Your task to perform on an android device: Search for the best rated 4K TV on Best Buy. Image 0: 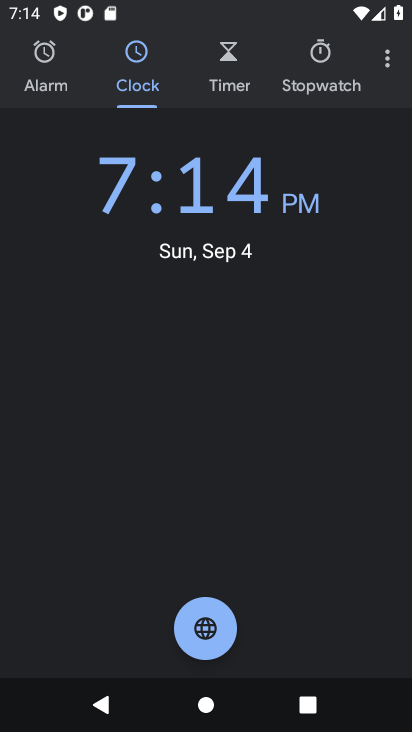
Step 0: press home button
Your task to perform on an android device: Search for the best rated 4K TV on Best Buy. Image 1: 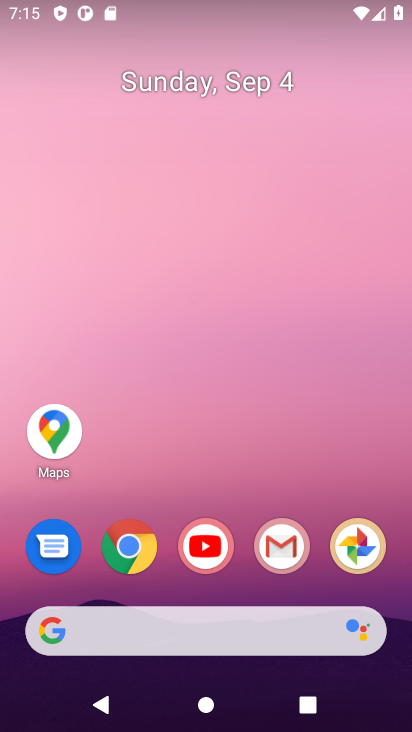
Step 1: click (125, 538)
Your task to perform on an android device: Search for the best rated 4K TV on Best Buy. Image 2: 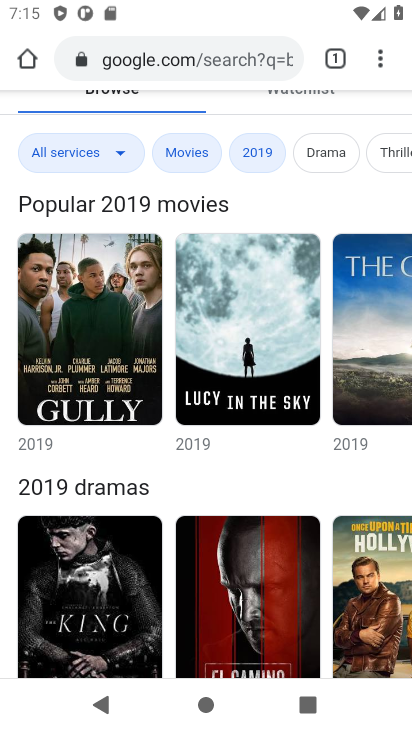
Step 2: click (179, 50)
Your task to perform on an android device: Search for the best rated 4K TV on Best Buy. Image 3: 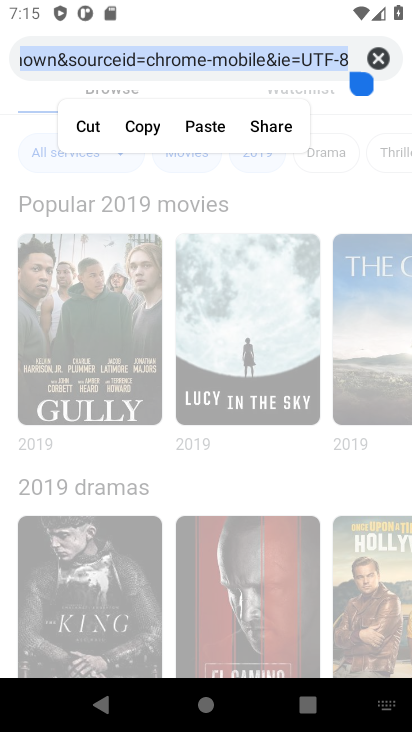
Step 3: click (378, 54)
Your task to perform on an android device: Search for the best rated 4K TV on Best Buy. Image 4: 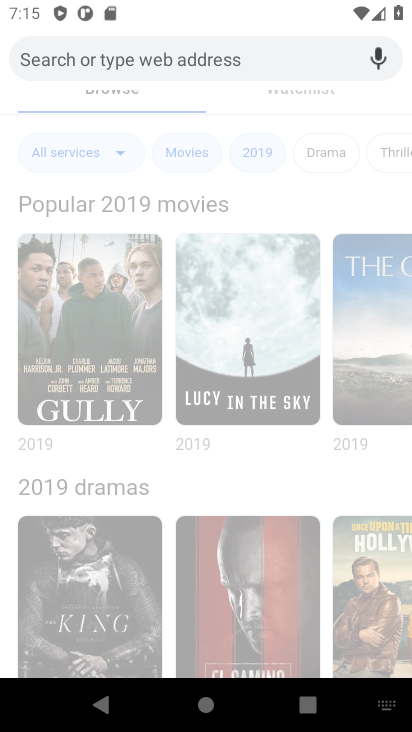
Step 4: type "best buy"
Your task to perform on an android device: Search for the best rated 4K TV on Best Buy. Image 5: 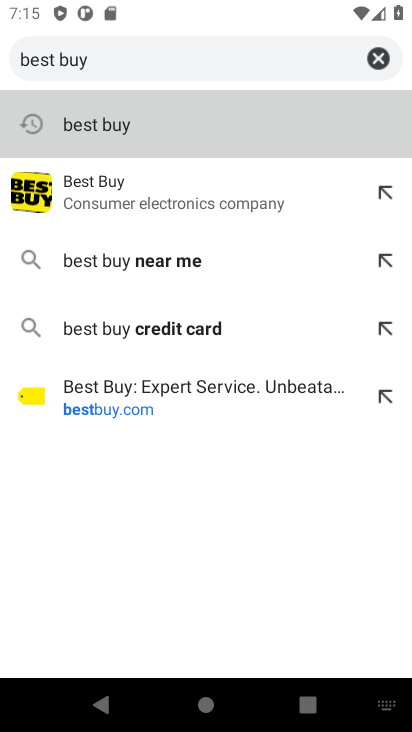
Step 5: click (114, 125)
Your task to perform on an android device: Search for the best rated 4K TV on Best Buy. Image 6: 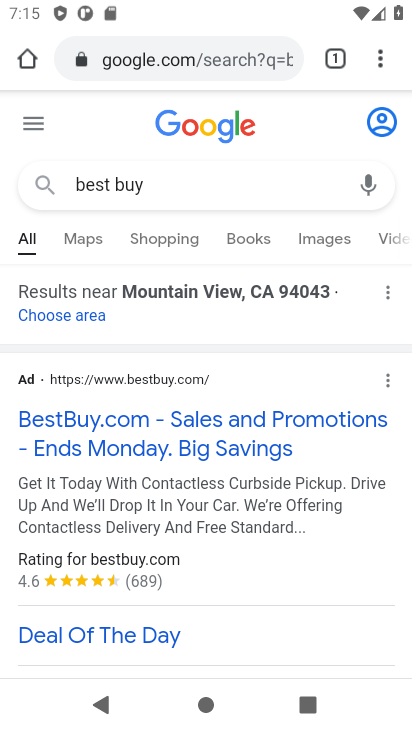
Step 6: click (72, 422)
Your task to perform on an android device: Search for the best rated 4K TV on Best Buy. Image 7: 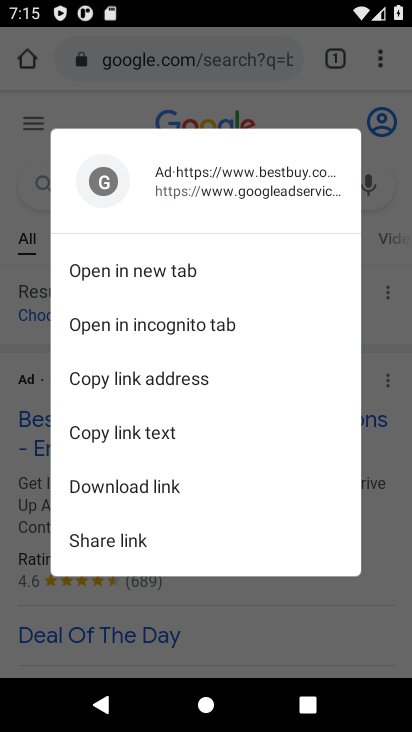
Step 7: click (392, 365)
Your task to perform on an android device: Search for the best rated 4K TV on Best Buy. Image 8: 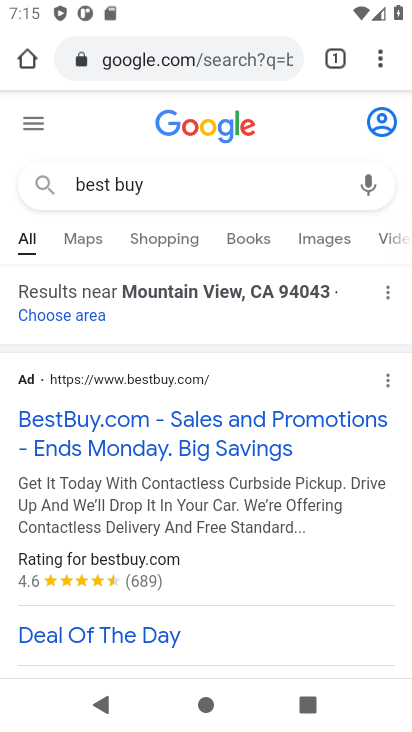
Step 8: drag from (150, 501) to (181, 247)
Your task to perform on an android device: Search for the best rated 4K TV on Best Buy. Image 9: 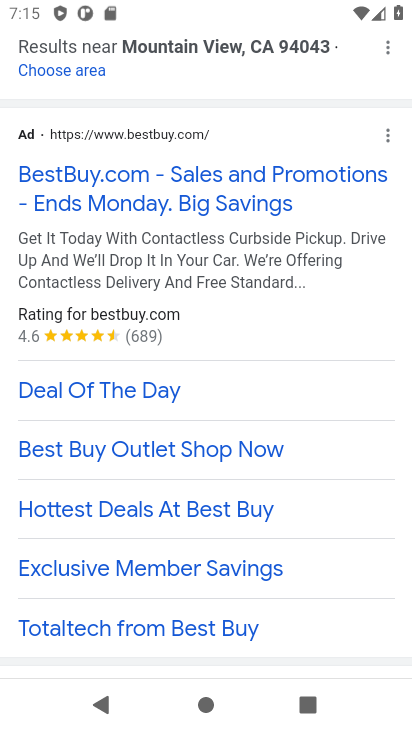
Step 9: click (86, 180)
Your task to perform on an android device: Search for the best rated 4K TV on Best Buy. Image 10: 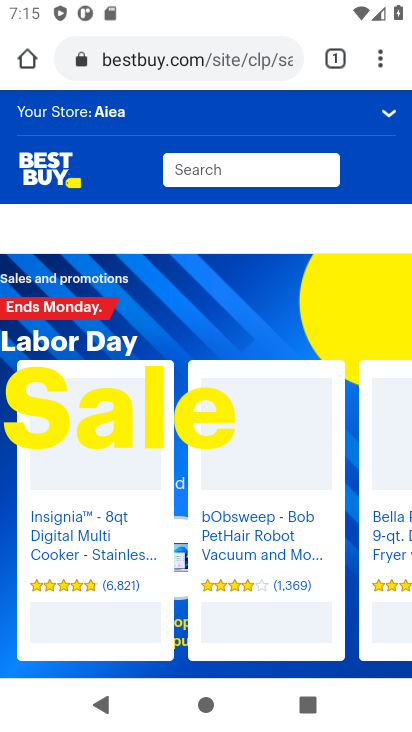
Step 10: click (325, 167)
Your task to perform on an android device: Search for the best rated 4K TV on Best Buy. Image 11: 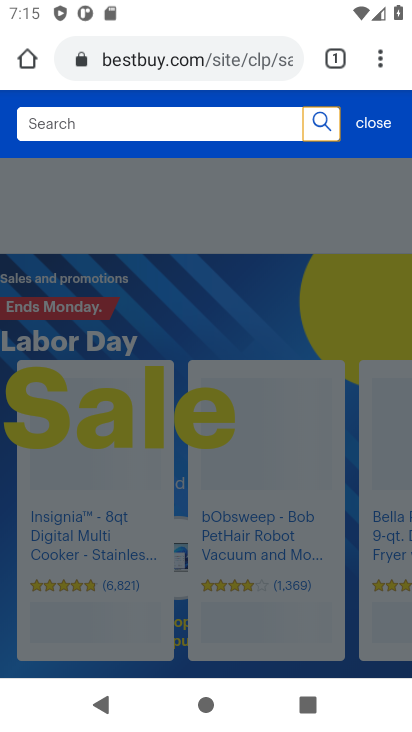
Step 11: click (50, 121)
Your task to perform on an android device: Search for the best rated 4K TV on Best Buy. Image 12: 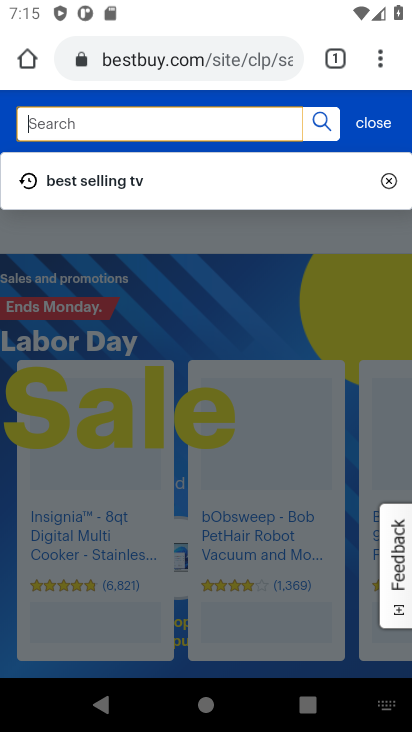
Step 12: type "best rated 4K TV"
Your task to perform on an android device: Search for the best rated 4K TV on Best Buy. Image 13: 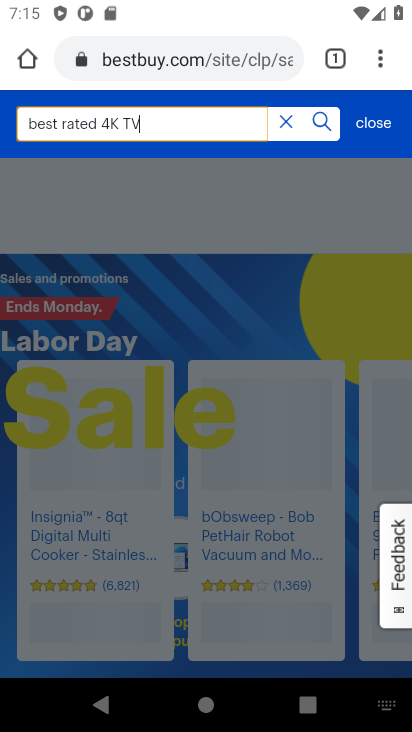
Step 13: click (321, 124)
Your task to perform on an android device: Search for the best rated 4K TV on Best Buy. Image 14: 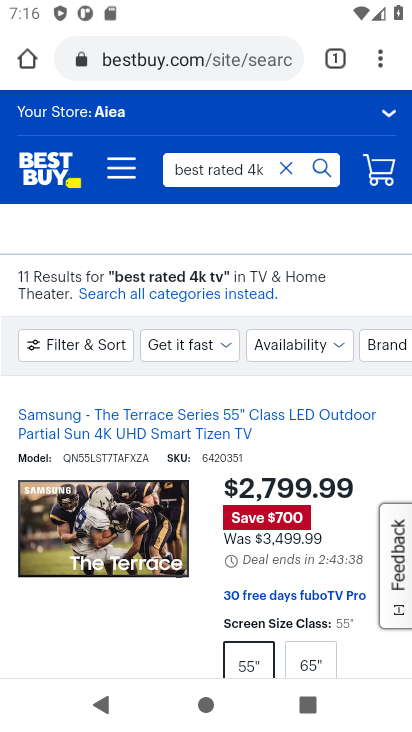
Step 14: task complete